Your task to perform on an android device: change the upload size in google photos Image 0: 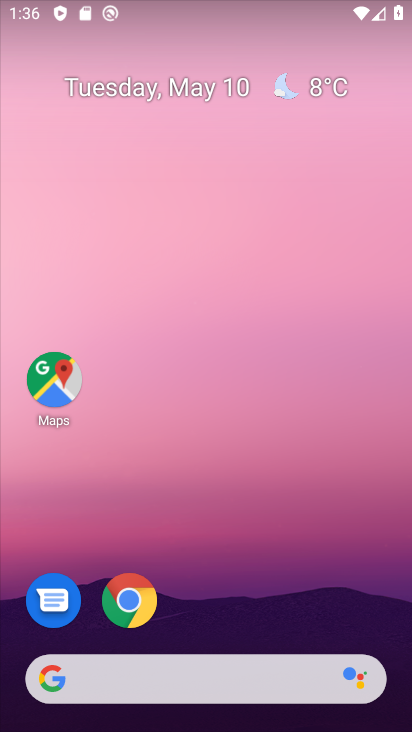
Step 0: drag from (218, 633) to (305, 163)
Your task to perform on an android device: change the upload size in google photos Image 1: 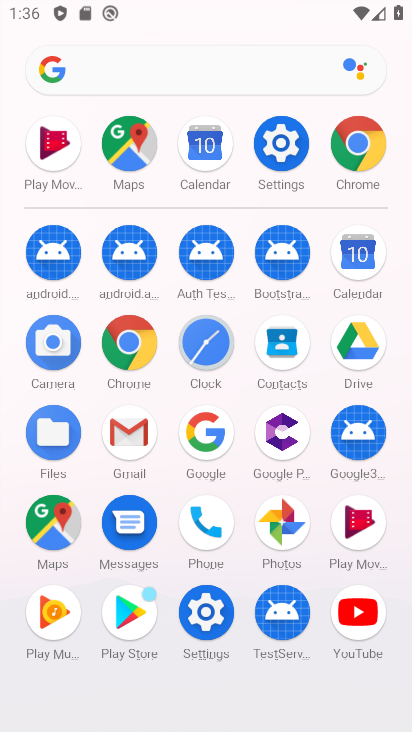
Step 1: click (279, 514)
Your task to perform on an android device: change the upload size in google photos Image 2: 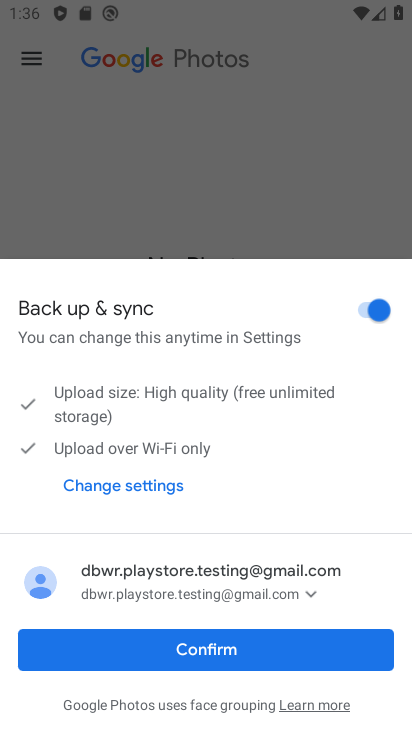
Step 2: click (228, 645)
Your task to perform on an android device: change the upload size in google photos Image 3: 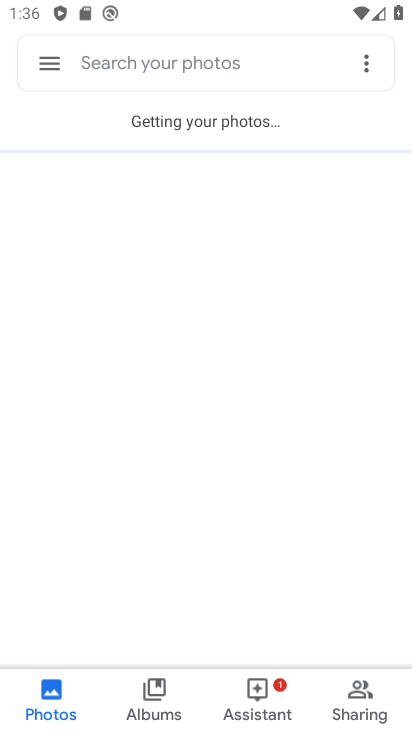
Step 3: click (42, 61)
Your task to perform on an android device: change the upload size in google photos Image 4: 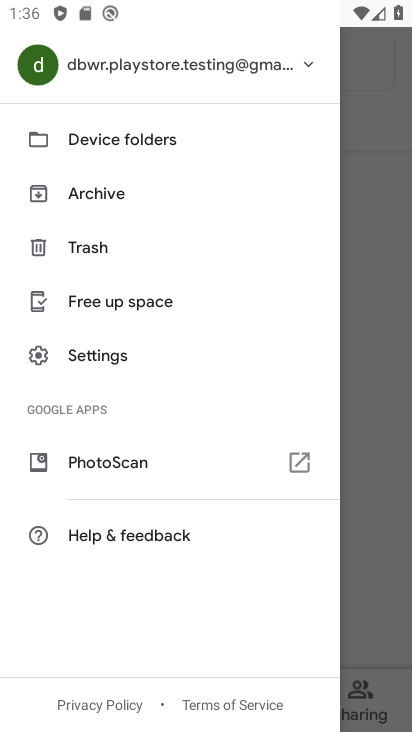
Step 4: click (140, 349)
Your task to perform on an android device: change the upload size in google photos Image 5: 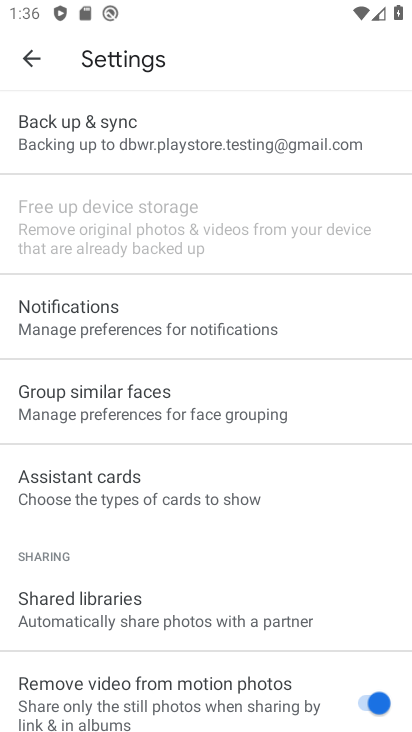
Step 5: click (147, 129)
Your task to perform on an android device: change the upload size in google photos Image 6: 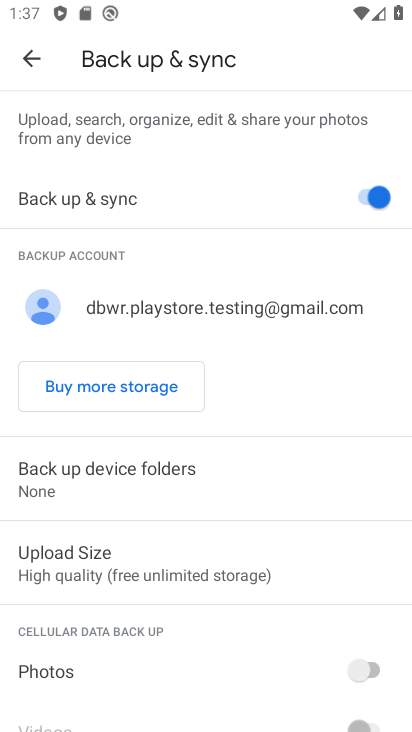
Step 6: click (122, 548)
Your task to perform on an android device: change the upload size in google photos Image 7: 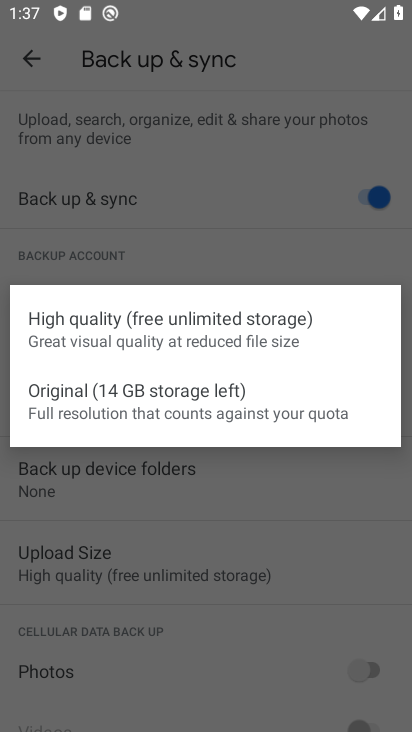
Step 7: click (165, 403)
Your task to perform on an android device: change the upload size in google photos Image 8: 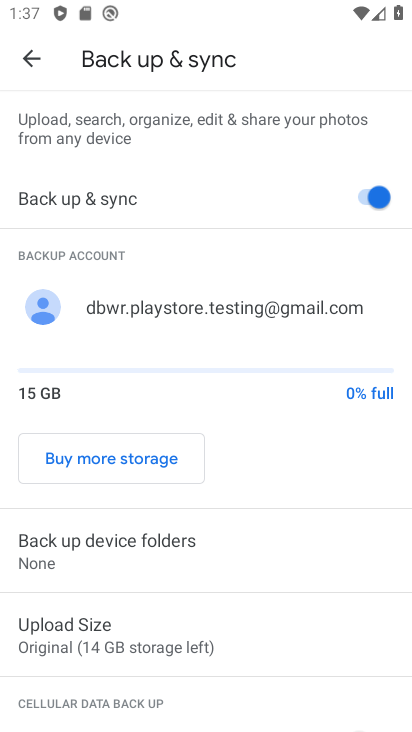
Step 8: task complete